Your task to perform on an android device: find snoozed emails in the gmail app Image 0: 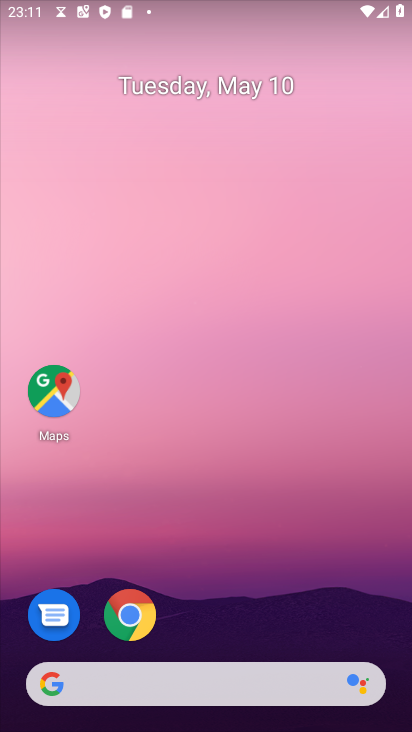
Step 0: drag from (224, 625) to (189, 130)
Your task to perform on an android device: find snoozed emails in the gmail app Image 1: 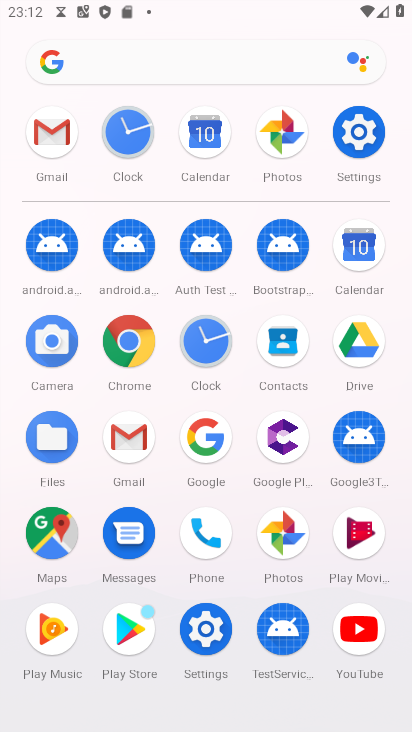
Step 1: click (50, 136)
Your task to perform on an android device: find snoozed emails in the gmail app Image 2: 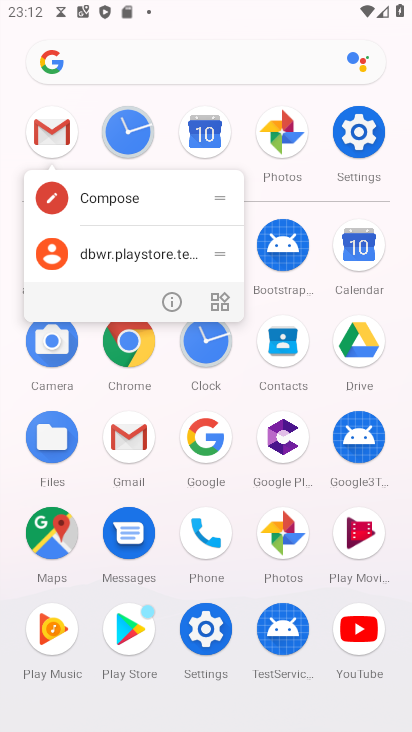
Step 2: click (51, 127)
Your task to perform on an android device: find snoozed emails in the gmail app Image 3: 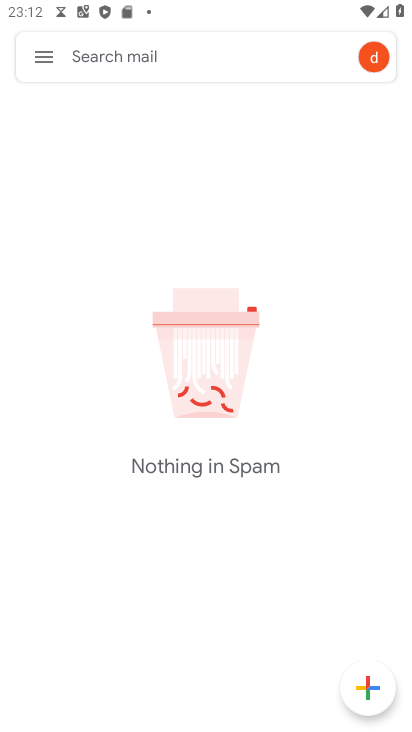
Step 3: click (43, 58)
Your task to perform on an android device: find snoozed emails in the gmail app Image 4: 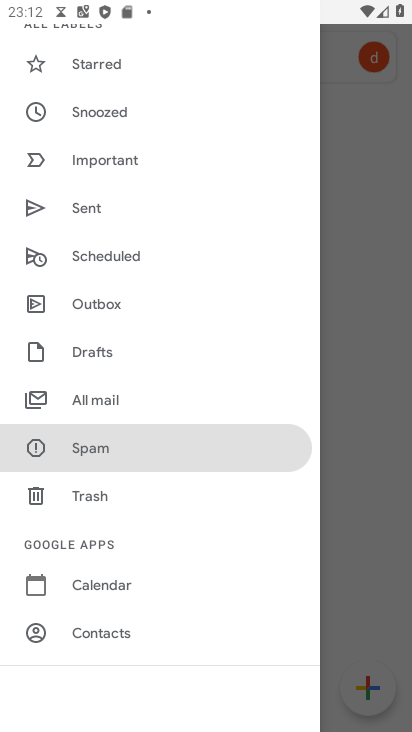
Step 4: click (100, 119)
Your task to perform on an android device: find snoozed emails in the gmail app Image 5: 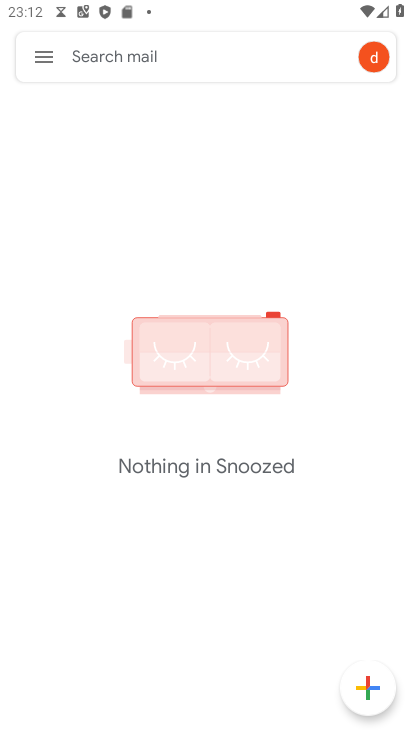
Step 5: click (45, 59)
Your task to perform on an android device: find snoozed emails in the gmail app Image 6: 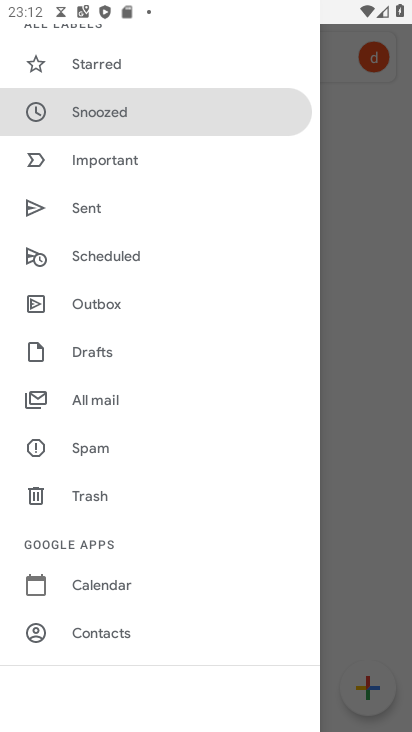
Step 6: click (109, 397)
Your task to perform on an android device: find snoozed emails in the gmail app Image 7: 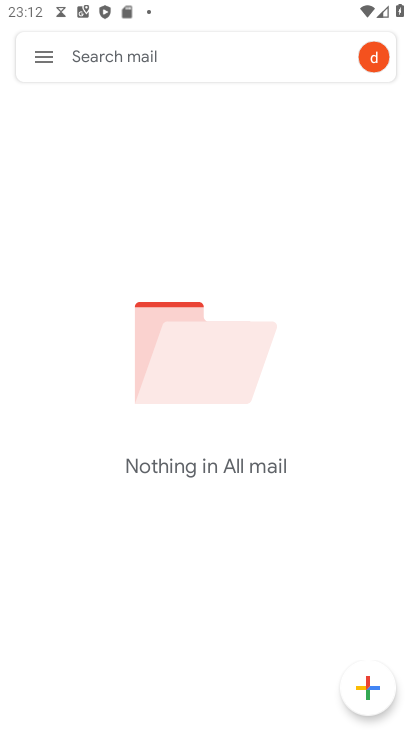
Step 7: click (38, 55)
Your task to perform on an android device: find snoozed emails in the gmail app Image 8: 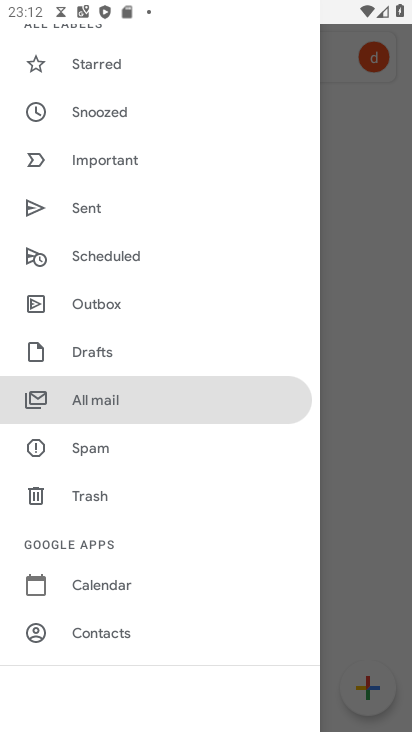
Step 8: click (106, 259)
Your task to perform on an android device: find snoozed emails in the gmail app Image 9: 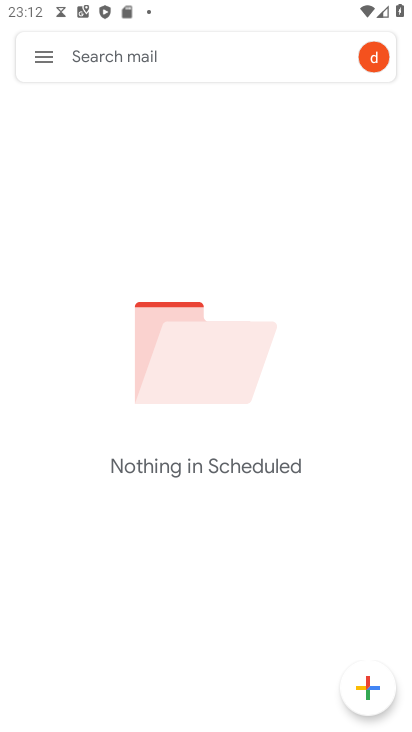
Step 9: task complete